Your task to perform on an android device: Go to Yahoo.com Image 0: 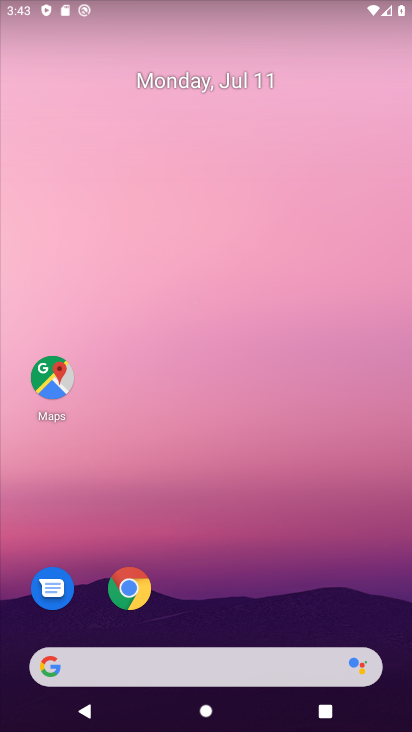
Step 0: drag from (248, 551) to (196, 1)
Your task to perform on an android device: Go to Yahoo.com Image 1: 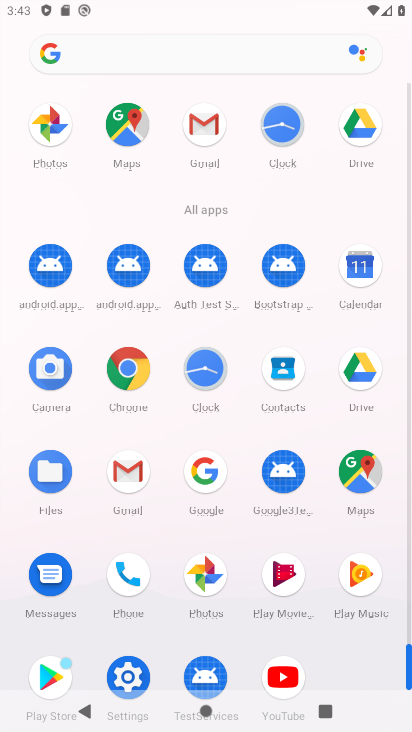
Step 1: click (119, 381)
Your task to perform on an android device: Go to Yahoo.com Image 2: 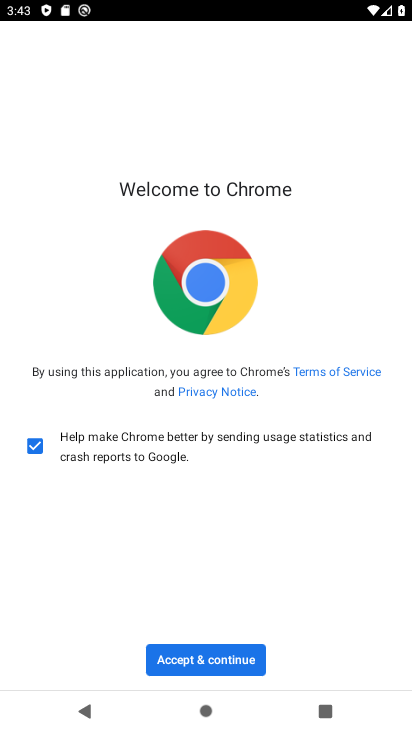
Step 2: click (188, 661)
Your task to perform on an android device: Go to Yahoo.com Image 3: 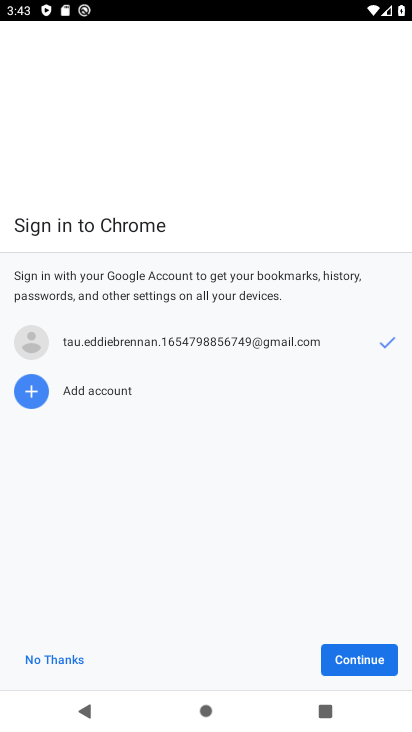
Step 3: click (79, 650)
Your task to perform on an android device: Go to Yahoo.com Image 4: 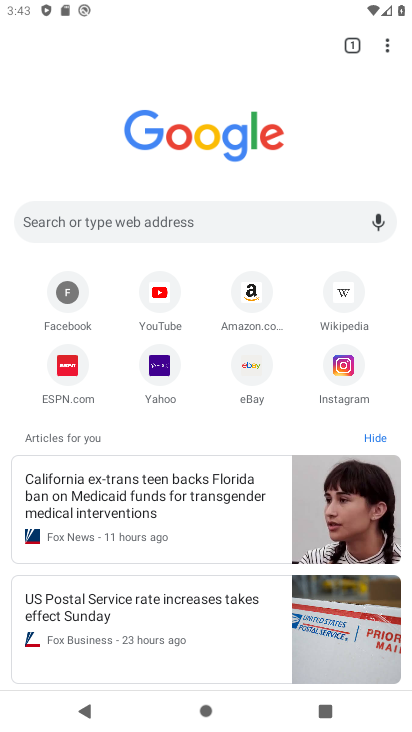
Step 4: click (164, 365)
Your task to perform on an android device: Go to Yahoo.com Image 5: 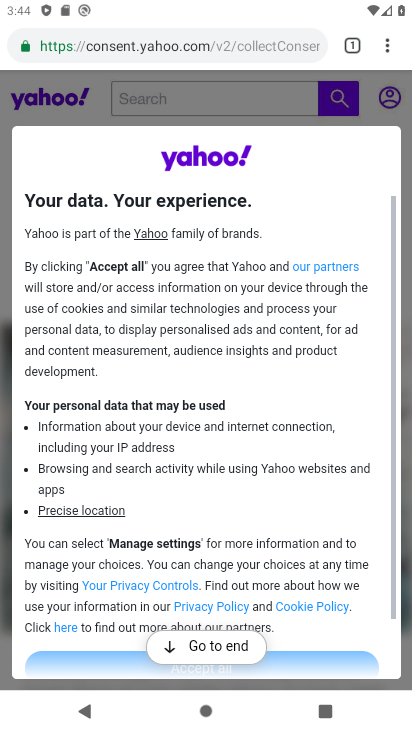
Step 5: task complete